Your task to perform on an android device: Open Google Chrome and click the shortcut for Amazon.com Image 0: 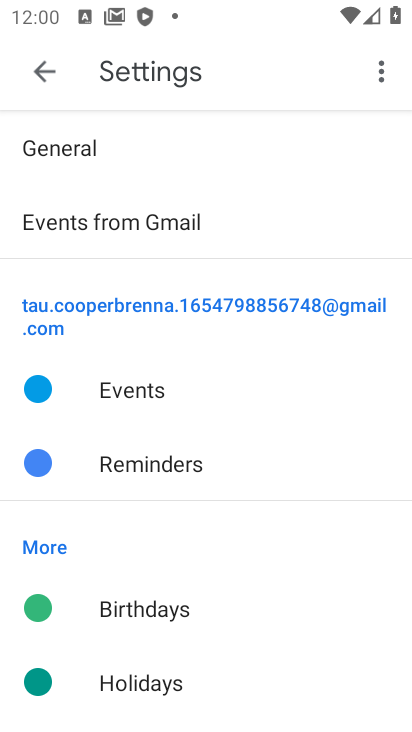
Step 0: press home button
Your task to perform on an android device: Open Google Chrome and click the shortcut for Amazon.com Image 1: 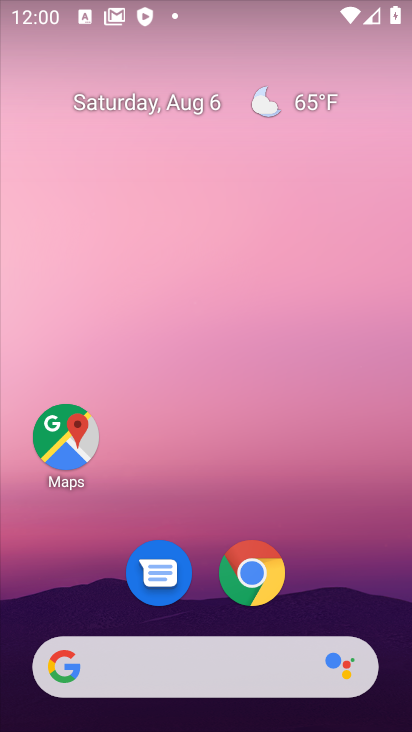
Step 1: task complete